Your task to perform on an android device: Open location settings Image 0: 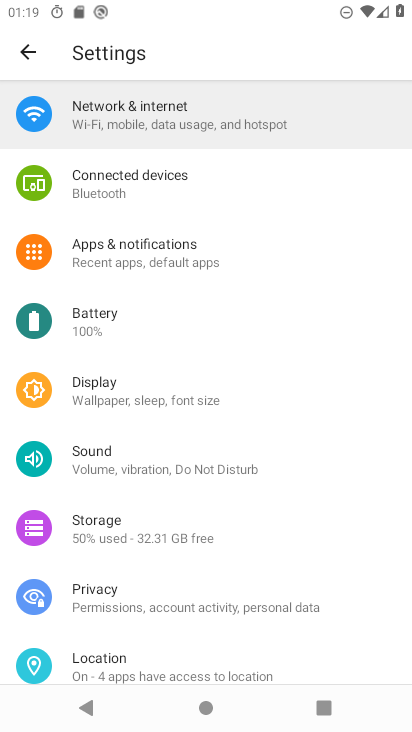
Step 0: press home button
Your task to perform on an android device: Open location settings Image 1: 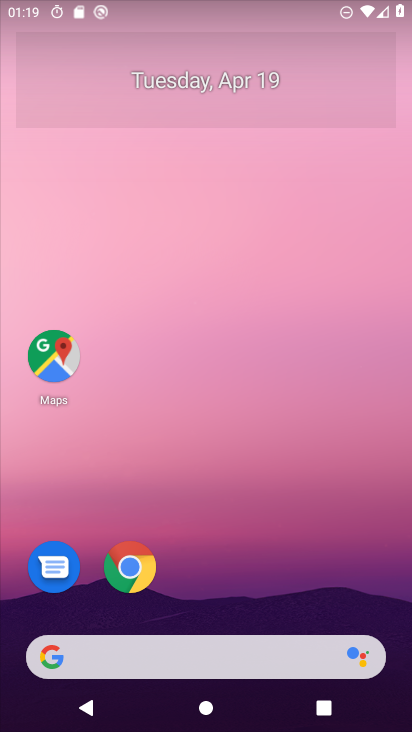
Step 1: drag from (286, 575) to (289, 115)
Your task to perform on an android device: Open location settings Image 2: 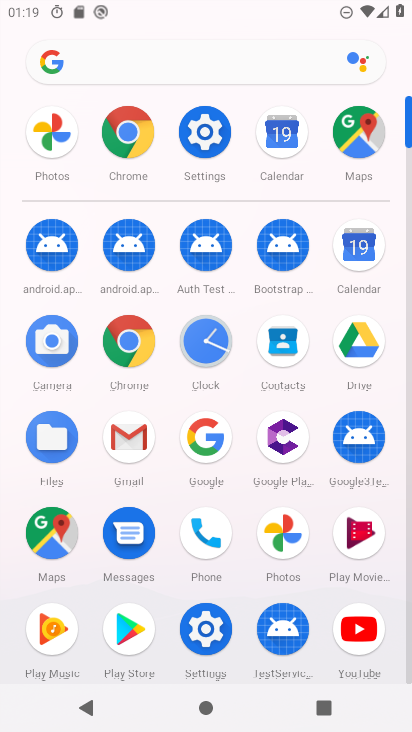
Step 2: click (223, 129)
Your task to perform on an android device: Open location settings Image 3: 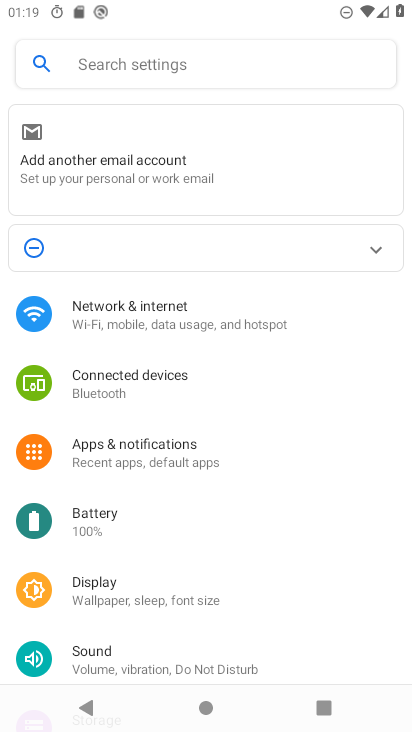
Step 3: drag from (282, 501) to (303, 245)
Your task to perform on an android device: Open location settings Image 4: 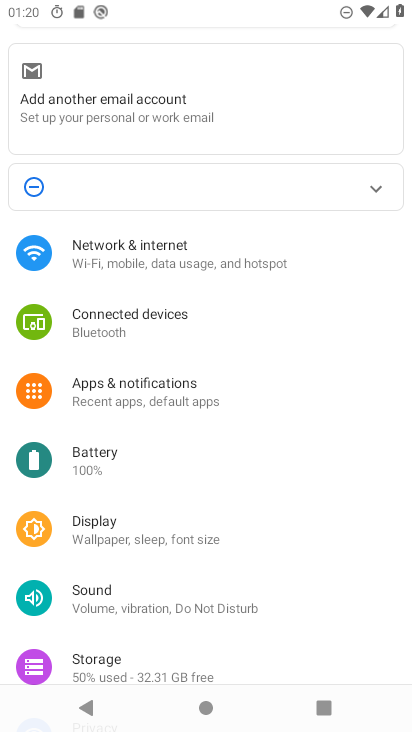
Step 4: drag from (209, 544) to (326, 219)
Your task to perform on an android device: Open location settings Image 5: 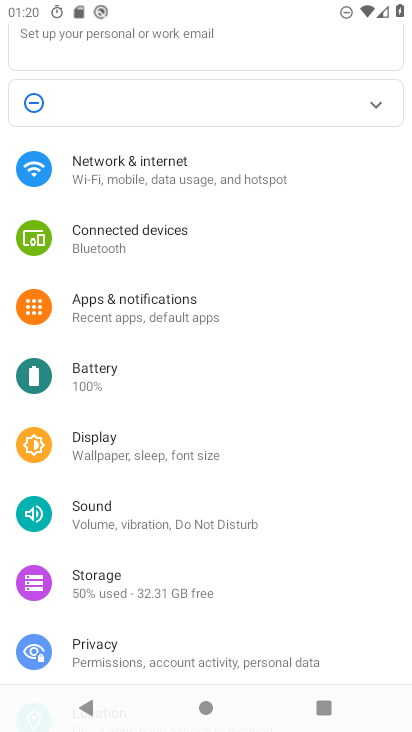
Step 5: drag from (150, 595) to (324, 260)
Your task to perform on an android device: Open location settings Image 6: 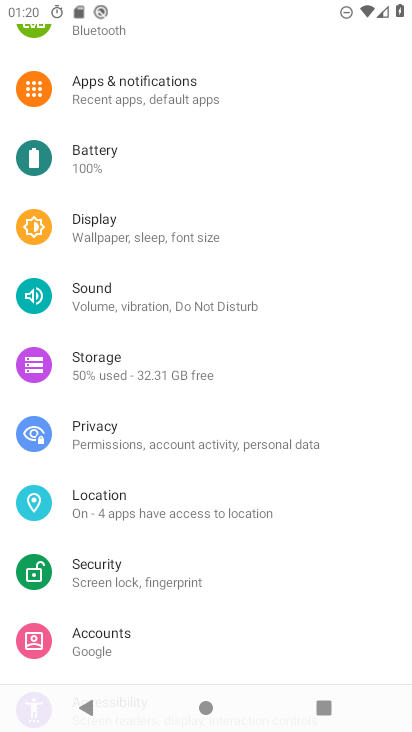
Step 6: click (139, 508)
Your task to perform on an android device: Open location settings Image 7: 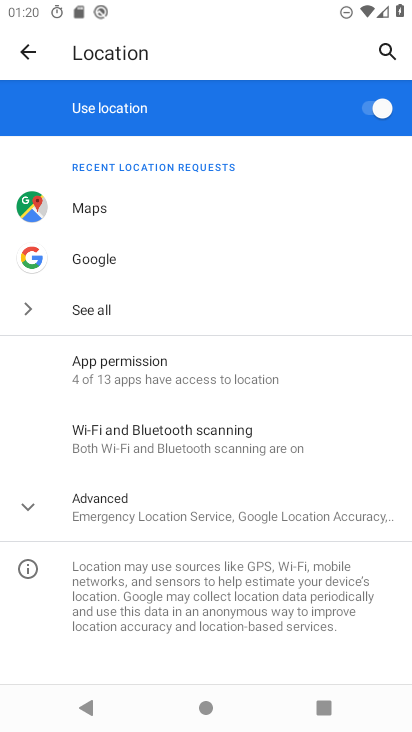
Step 7: task complete